Your task to perform on an android device: read, delete, or share a saved page in the chrome app Image 0: 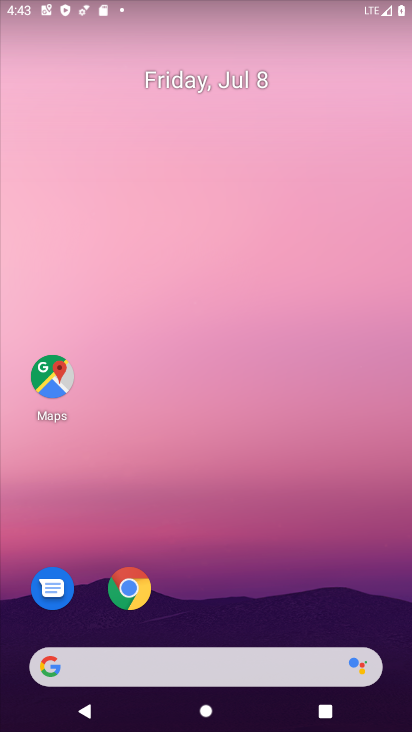
Step 0: drag from (200, 598) to (183, 0)
Your task to perform on an android device: read, delete, or share a saved page in the chrome app Image 1: 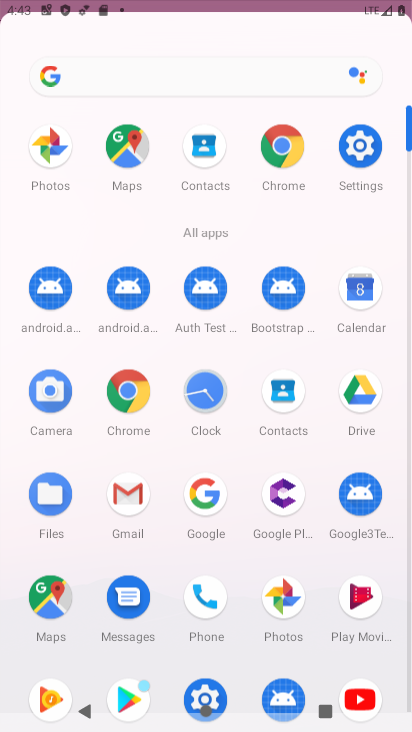
Step 1: press home button
Your task to perform on an android device: read, delete, or share a saved page in the chrome app Image 2: 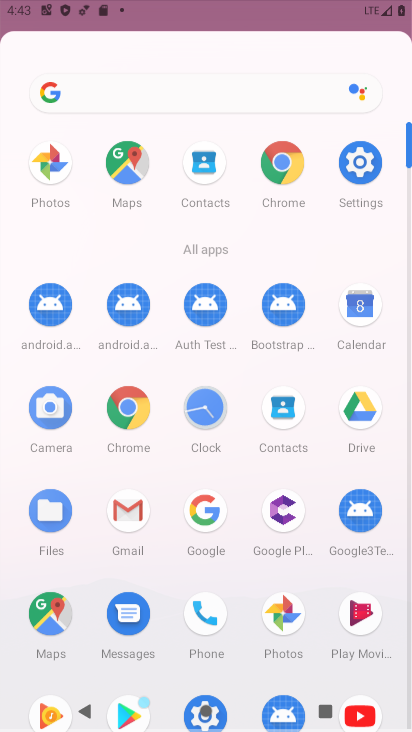
Step 2: drag from (183, 0) to (393, 336)
Your task to perform on an android device: read, delete, or share a saved page in the chrome app Image 3: 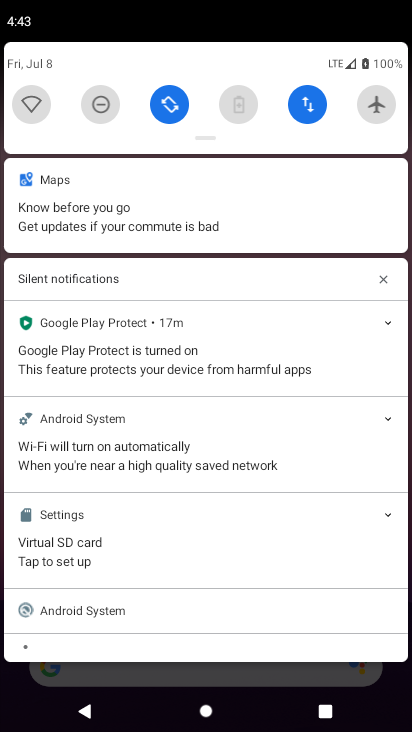
Step 3: click (143, 594)
Your task to perform on an android device: read, delete, or share a saved page in the chrome app Image 4: 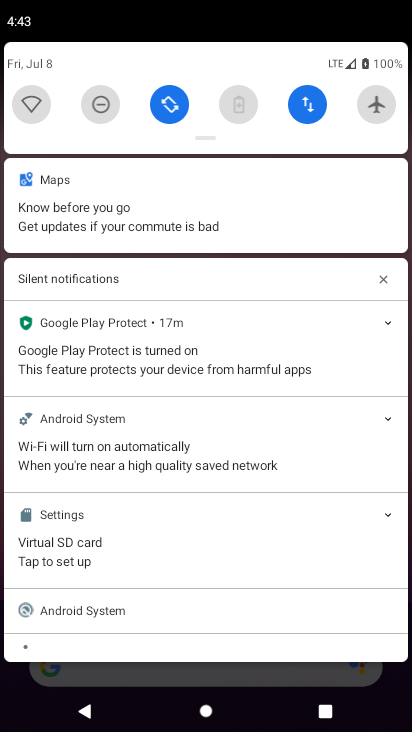
Step 4: drag from (138, 662) to (199, 20)
Your task to perform on an android device: read, delete, or share a saved page in the chrome app Image 5: 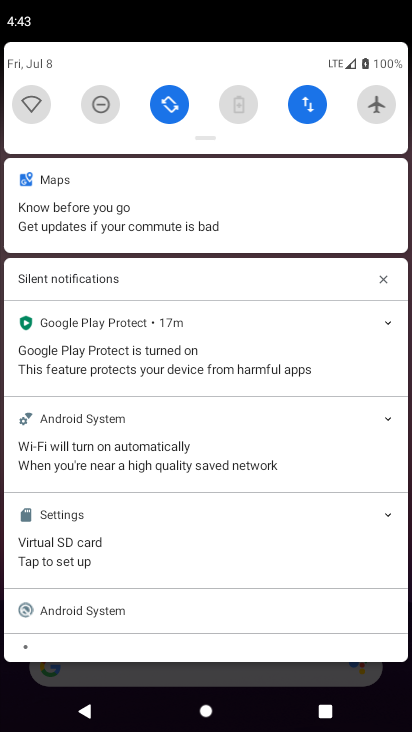
Step 5: press back button
Your task to perform on an android device: read, delete, or share a saved page in the chrome app Image 6: 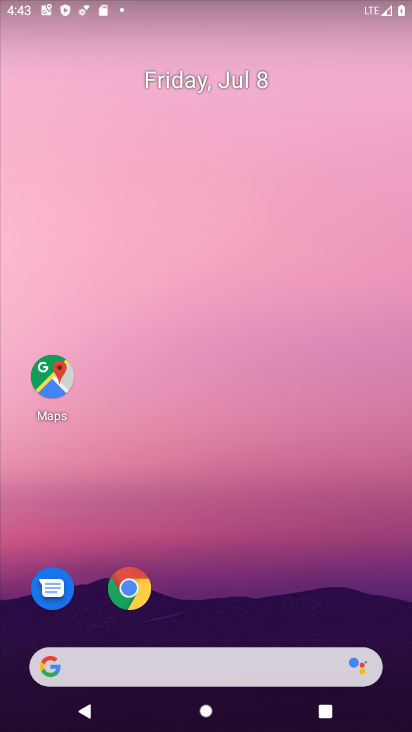
Step 6: click (138, 598)
Your task to perform on an android device: read, delete, or share a saved page in the chrome app Image 7: 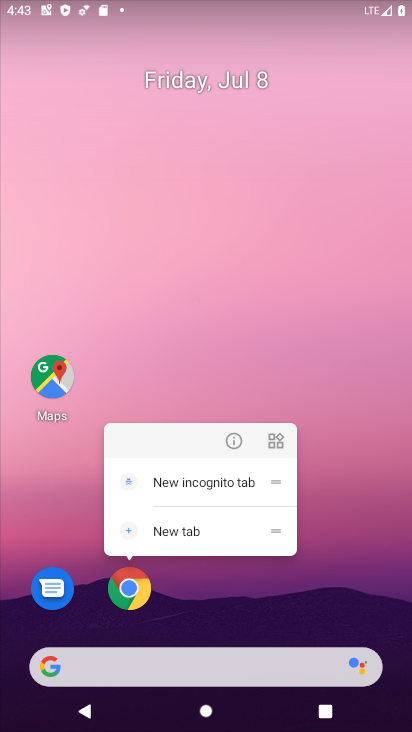
Step 7: click (134, 587)
Your task to perform on an android device: read, delete, or share a saved page in the chrome app Image 8: 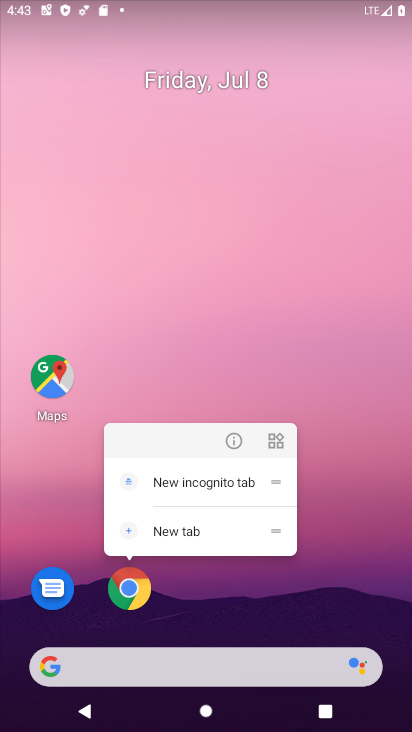
Step 8: click (137, 588)
Your task to perform on an android device: read, delete, or share a saved page in the chrome app Image 9: 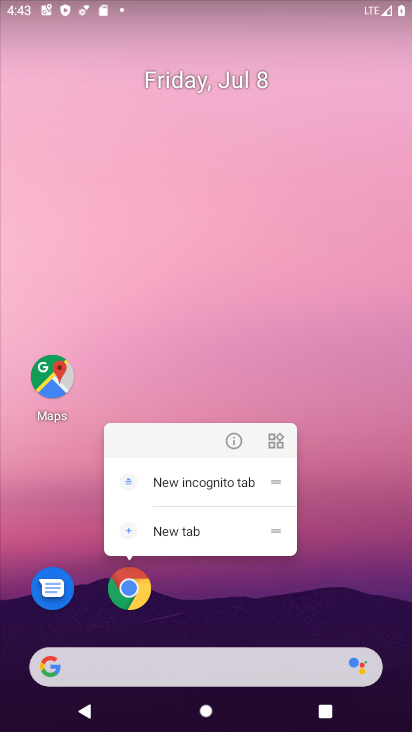
Step 9: click (137, 588)
Your task to perform on an android device: read, delete, or share a saved page in the chrome app Image 10: 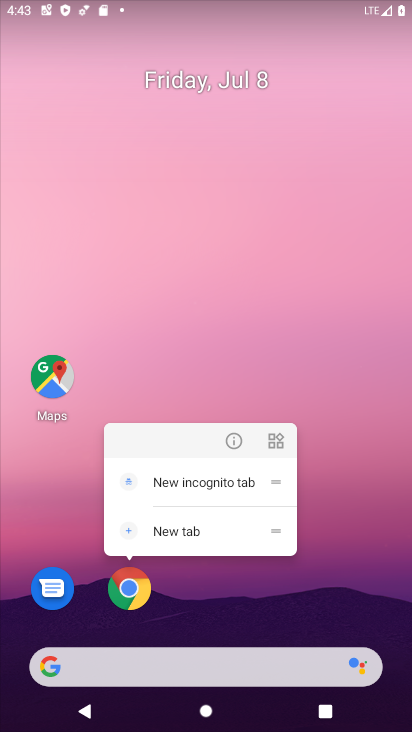
Step 10: click (137, 588)
Your task to perform on an android device: read, delete, or share a saved page in the chrome app Image 11: 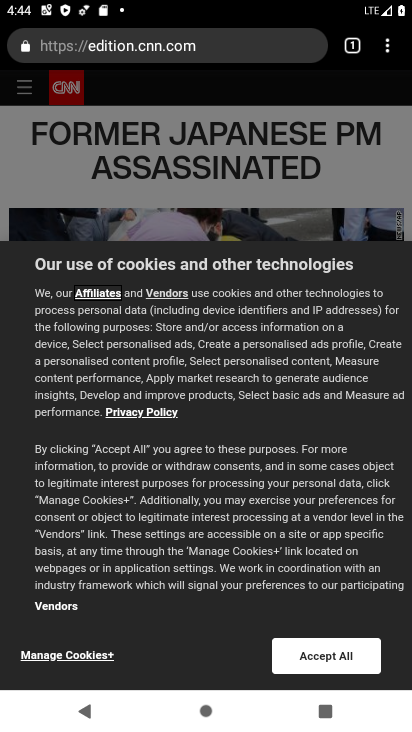
Step 11: click (383, 41)
Your task to perform on an android device: read, delete, or share a saved page in the chrome app Image 12: 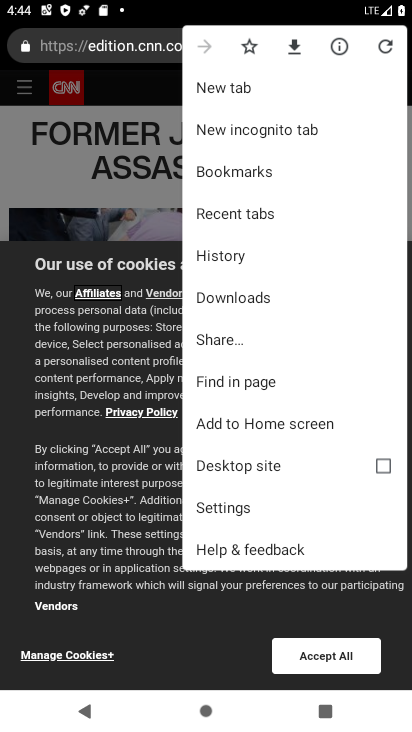
Step 12: click (226, 297)
Your task to perform on an android device: read, delete, or share a saved page in the chrome app Image 13: 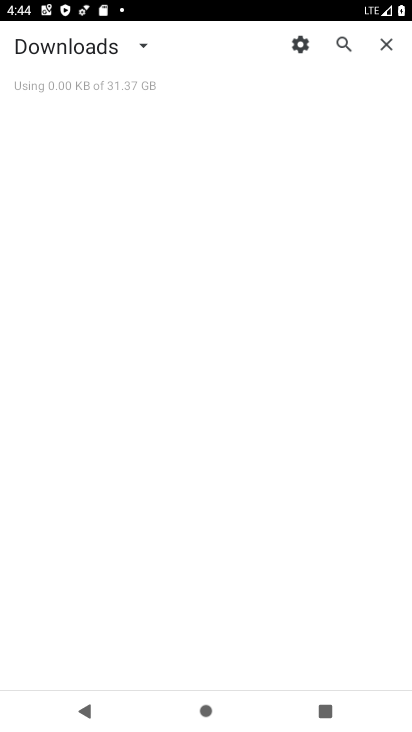
Step 13: task complete